Your task to perform on an android device: Show the shopping cart on costco. Image 0: 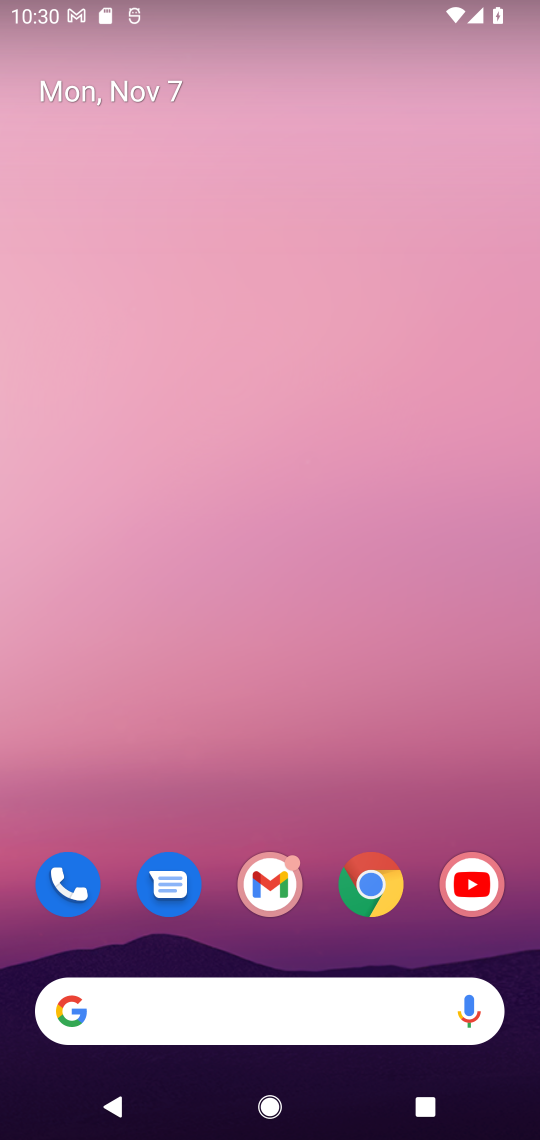
Step 0: click (371, 874)
Your task to perform on an android device: Show the shopping cart on costco. Image 1: 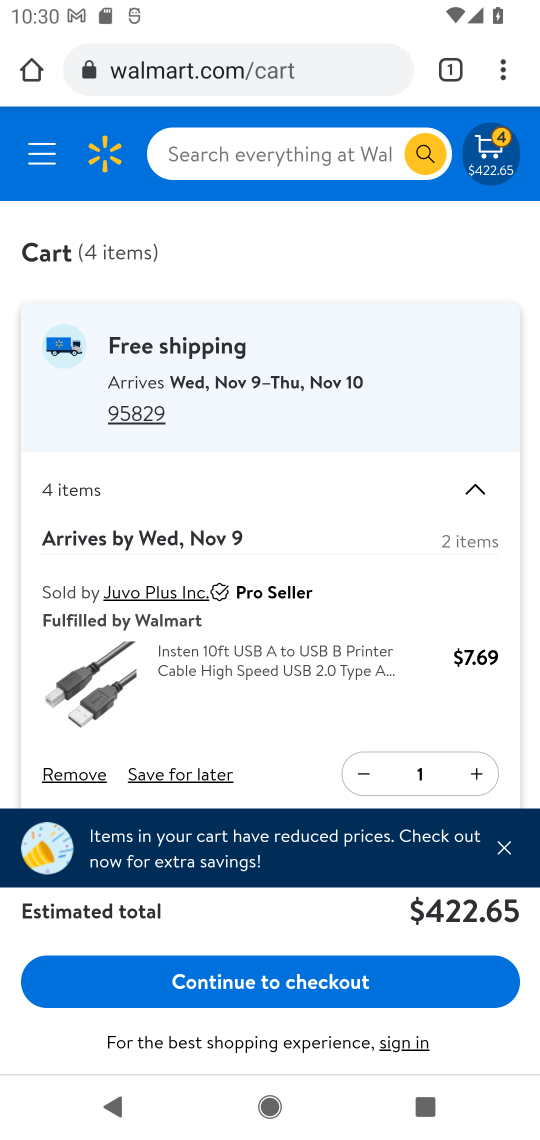
Step 1: click (234, 38)
Your task to perform on an android device: Show the shopping cart on costco. Image 2: 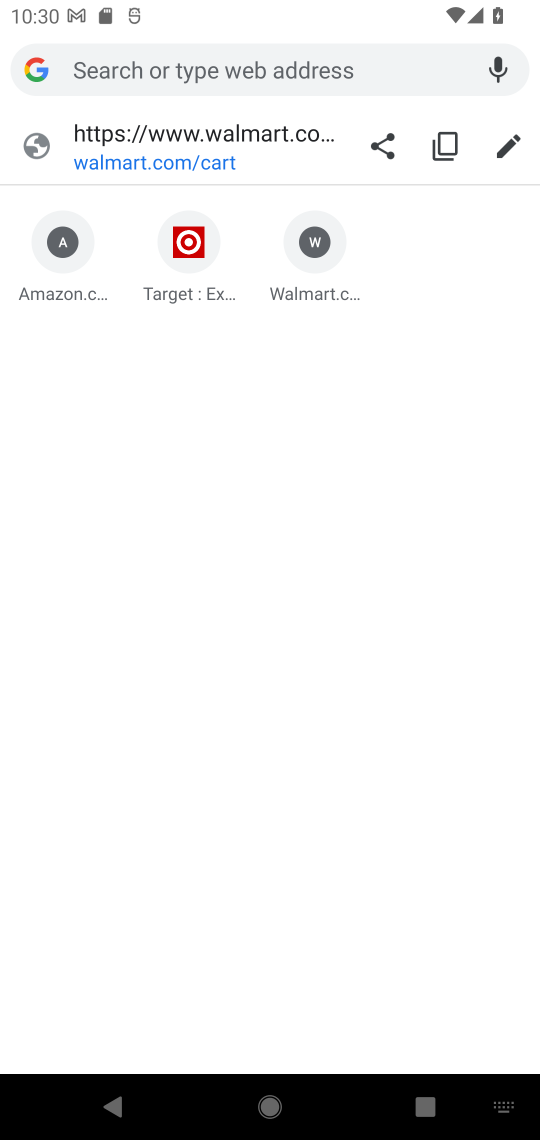
Step 2: type "costco"
Your task to perform on an android device: Show the shopping cart on costco. Image 3: 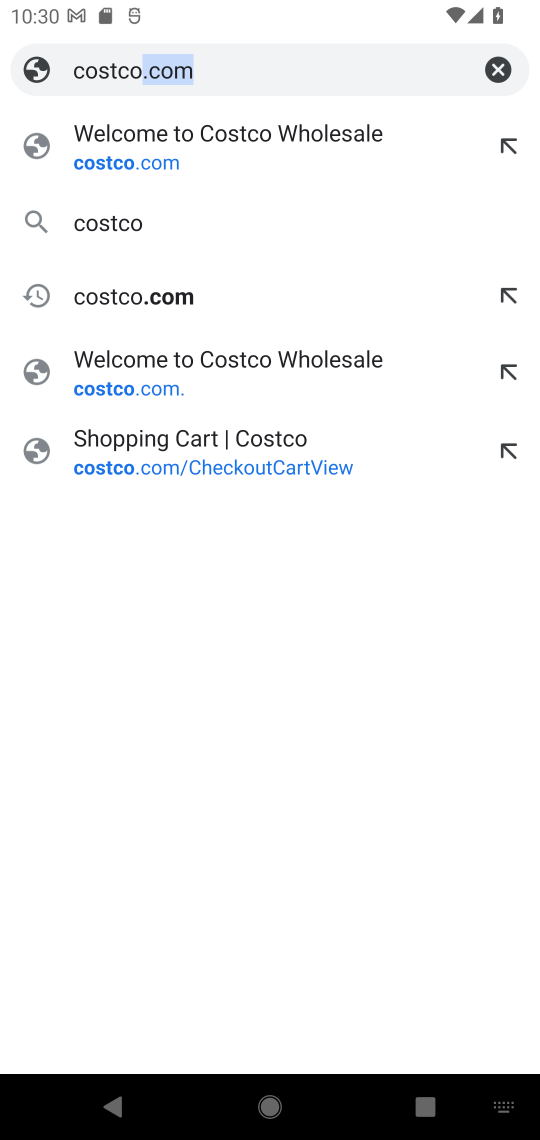
Step 3: click (176, 286)
Your task to perform on an android device: Show the shopping cart on costco. Image 4: 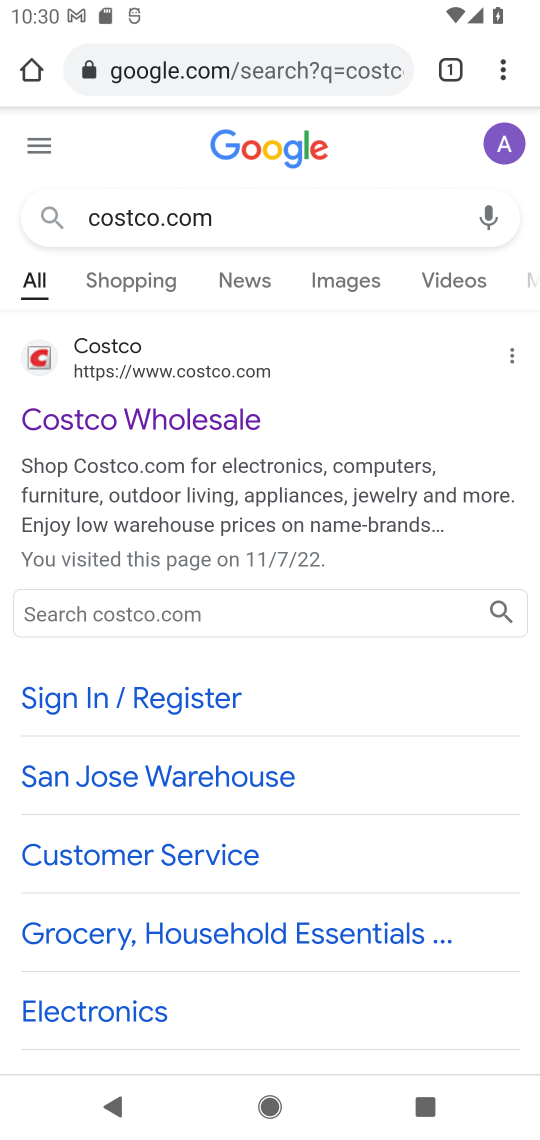
Step 4: click (210, 378)
Your task to perform on an android device: Show the shopping cart on costco. Image 5: 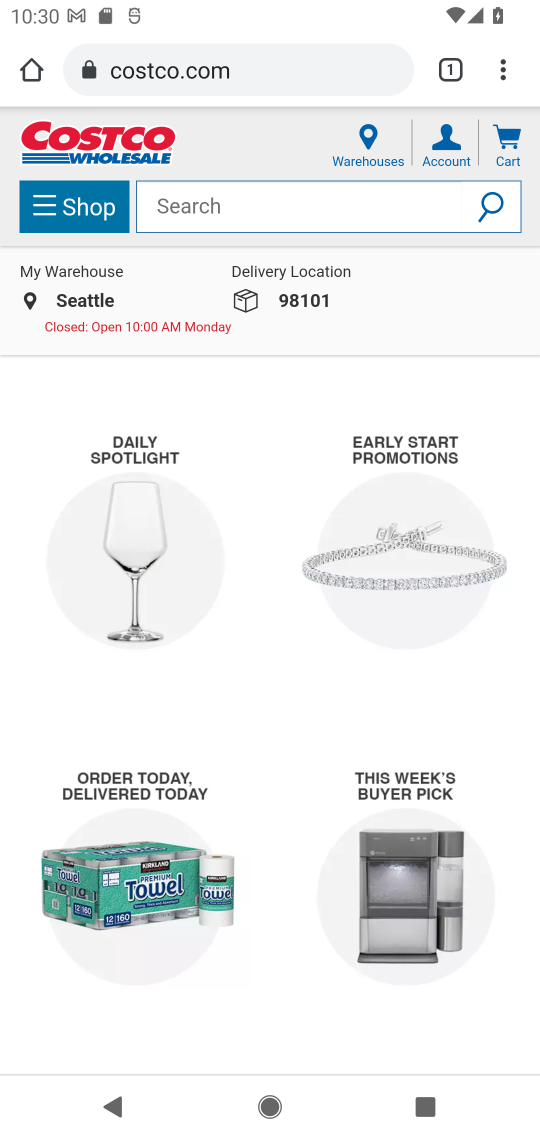
Step 5: click (503, 148)
Your task to perform on an android device: Show the shopping cart on costco. Image 6: 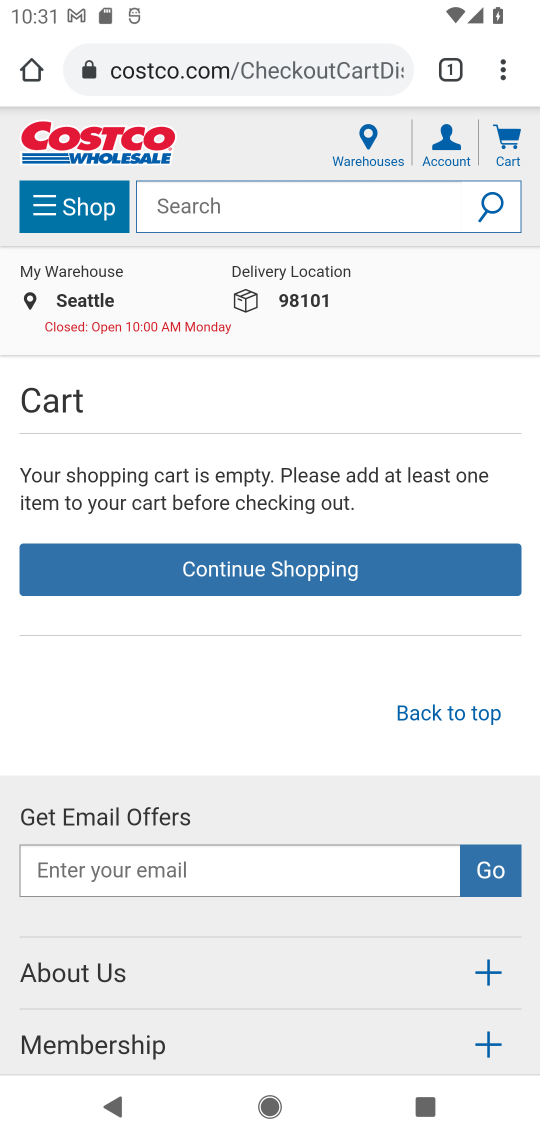
Step 6: task complete